Your task to perform on an android device: When is my next meeting? Image 0: 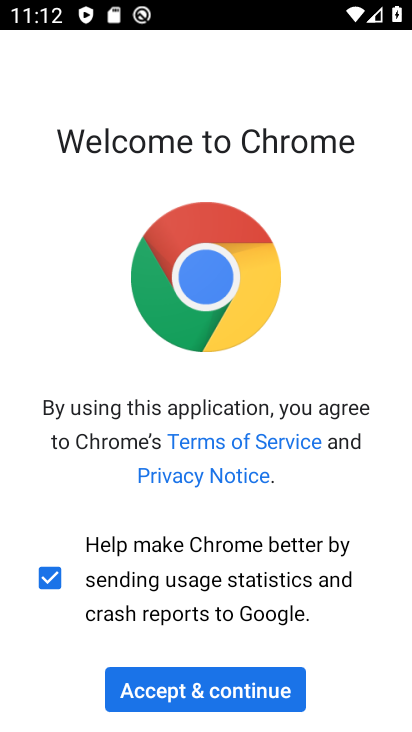
Step 0: press home button
Your task to perform on an android device: When is my next meeting? Image 1: 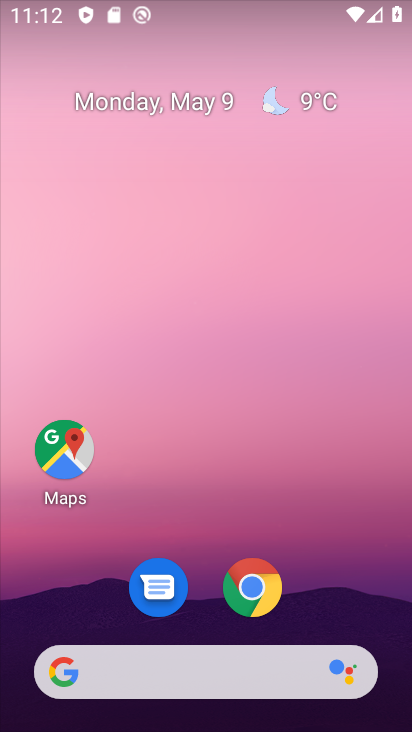
Step 1: drag from (203, 616) to (249, 257)
Your task to perform on an android device: When is my next meeting? Image 2: 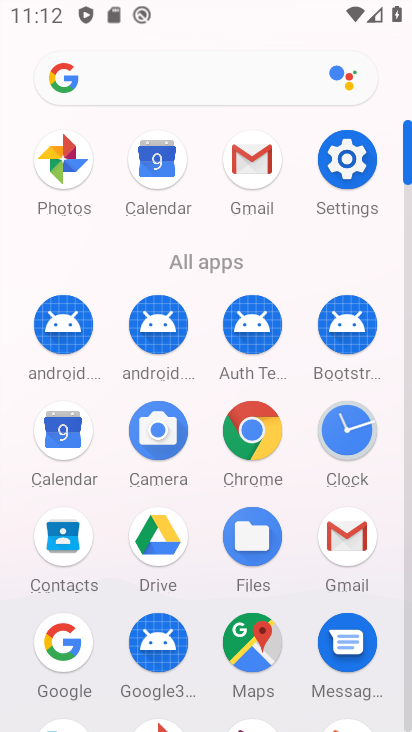
Step 2: click (55, 440)
Your task to perform on an android device: When is my next meeting? Image 3: 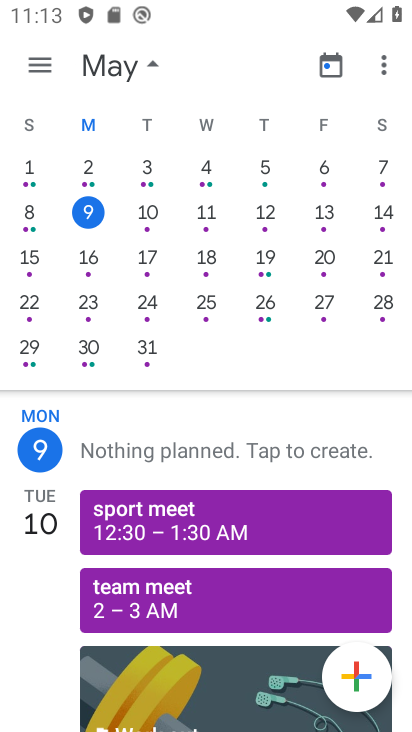
Step 3: click (122, 600)
Your task to perform on an android device: When is my next meeting? Image 4: 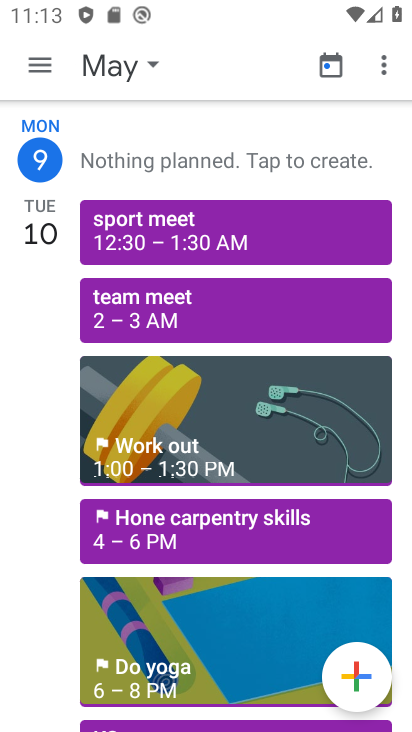
Step 4: click (155, 507)
Your task to perform on an android device: When is my next meeting? Image 5: 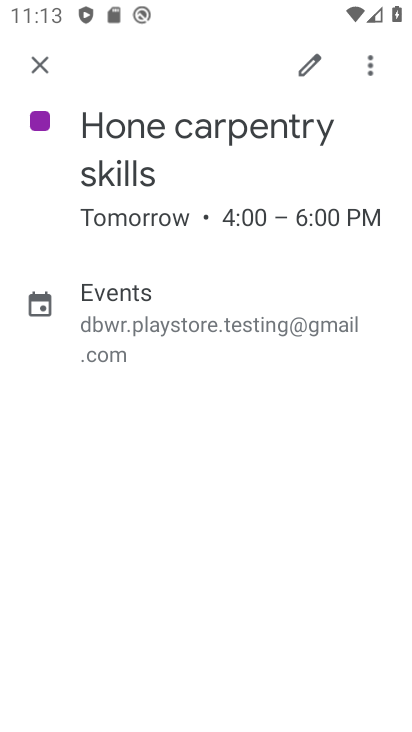
Step 5: task complete